Your task to perform on an android device: see sites visited before in the chrome app Image 0: 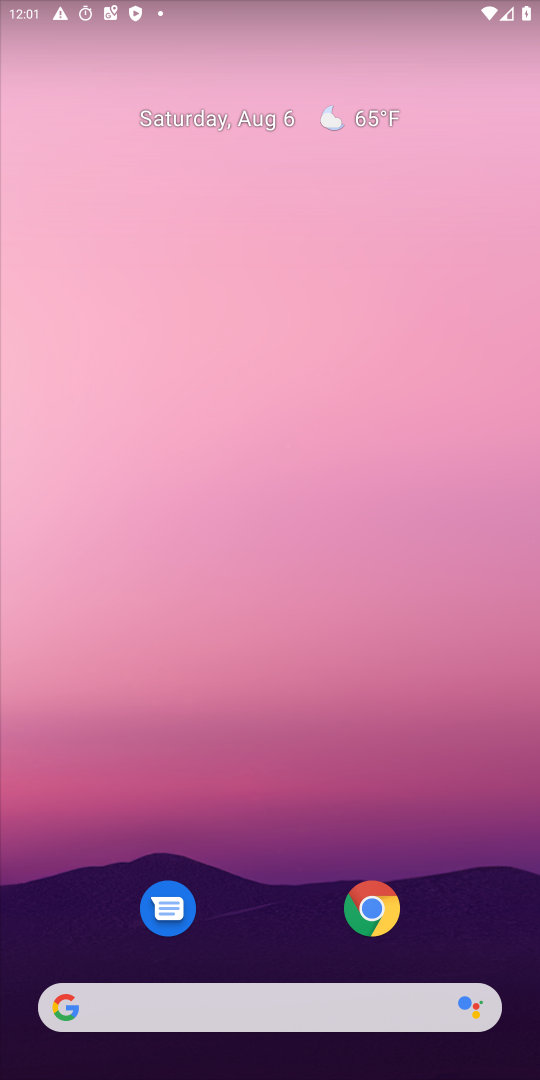
Step 0: click (372, 917)
Your task to perform on an android device: see sites visited before in the chrome app Image 1: 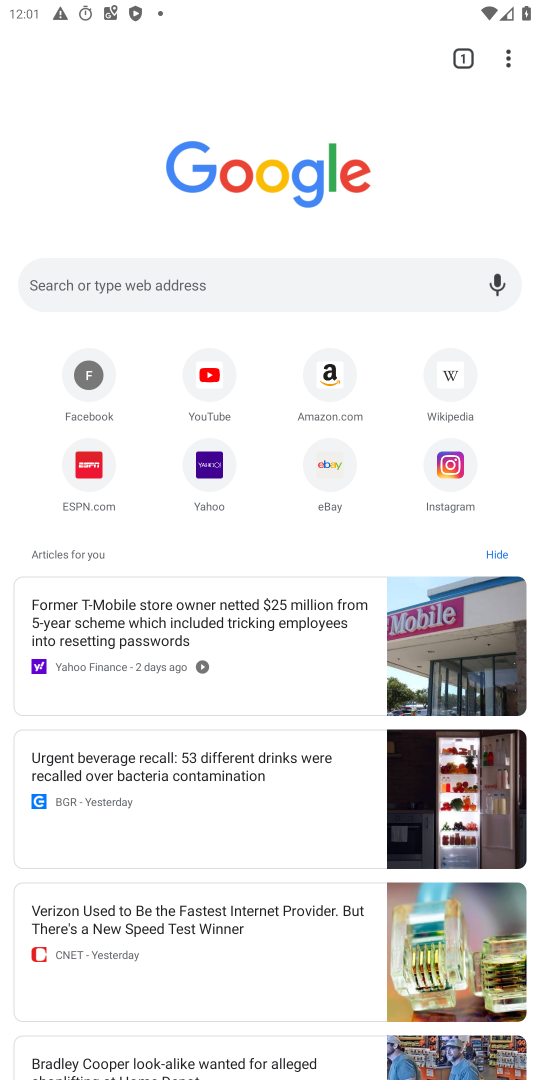
Step 1: click (503, 47)
Your task to perform on an android device: see sites visited before in the chrome app Image 2: 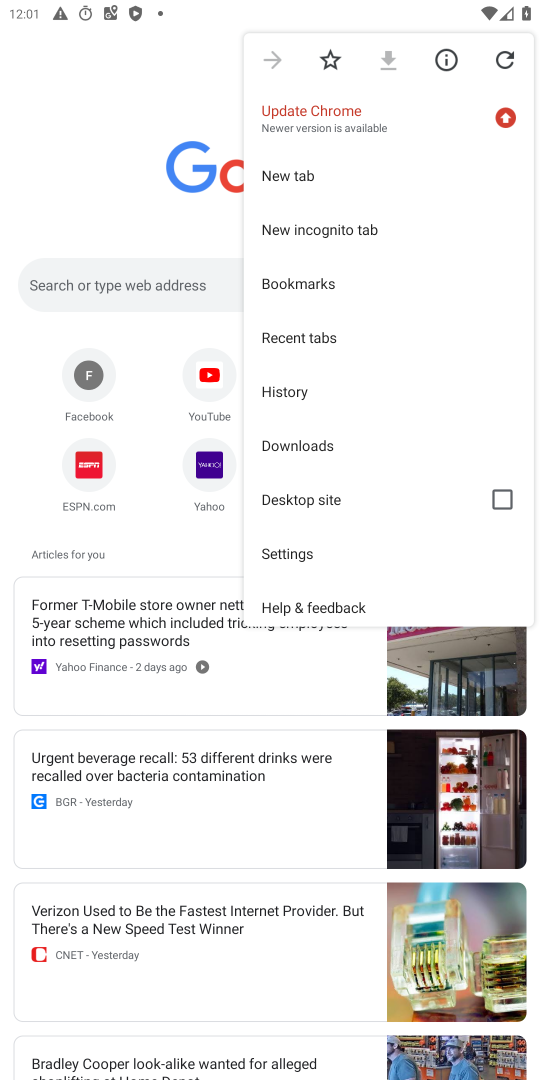
Step 2: click (287, 560)
Your task to perform on an android device: see sites visited before in the chrome app Image 3: 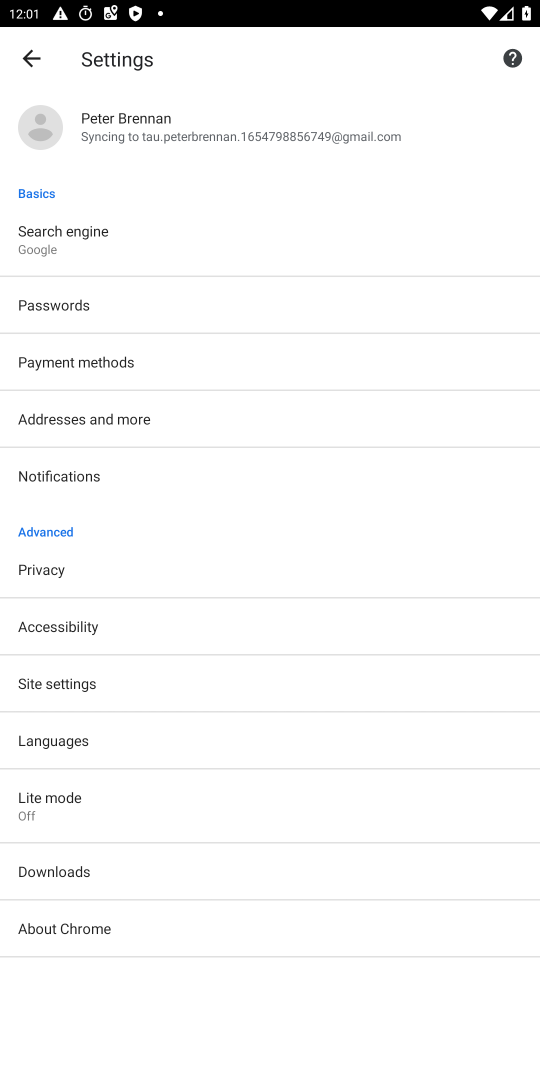
Step 3: click (86, 683)
Your task to perform on an android device: see sites visited before in the chrome app Image 4: 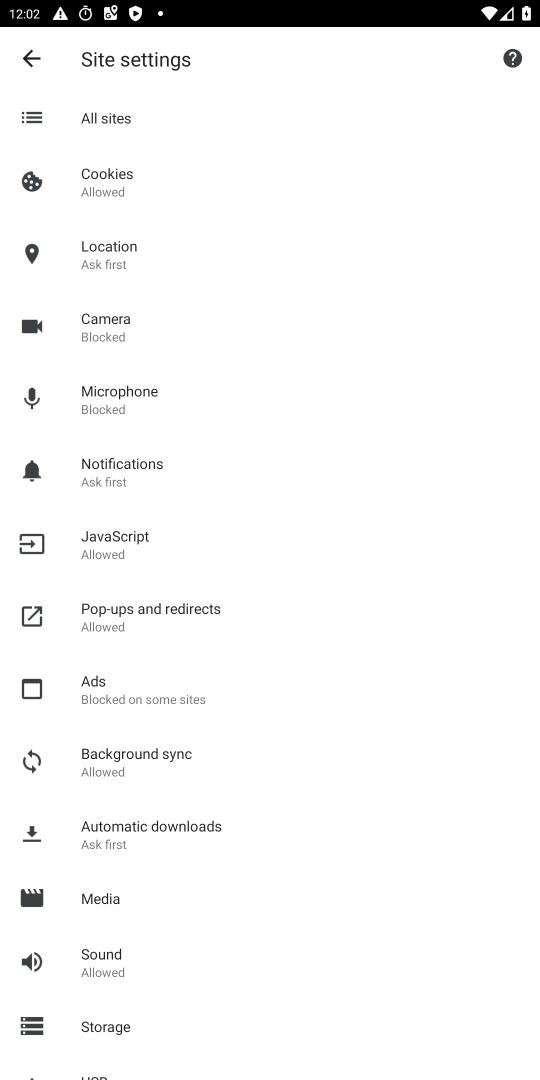
Step 4: task complete